Your task to perform on an android device: Do I have any events this weekend? Image 0: 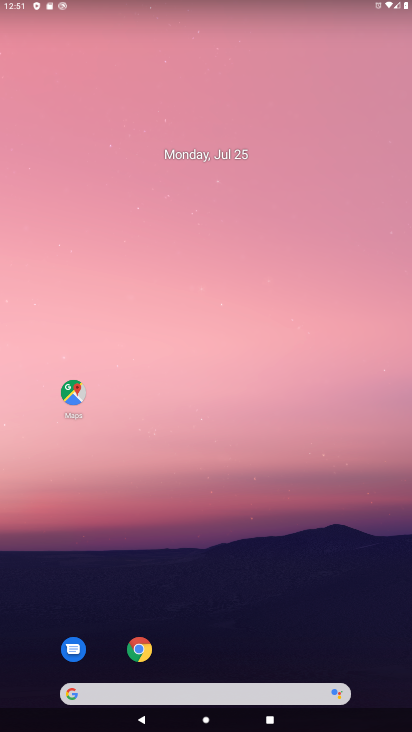
Step 0: press home button
Your task to perform on an android device: Do I have any events this weekend? Image 1: 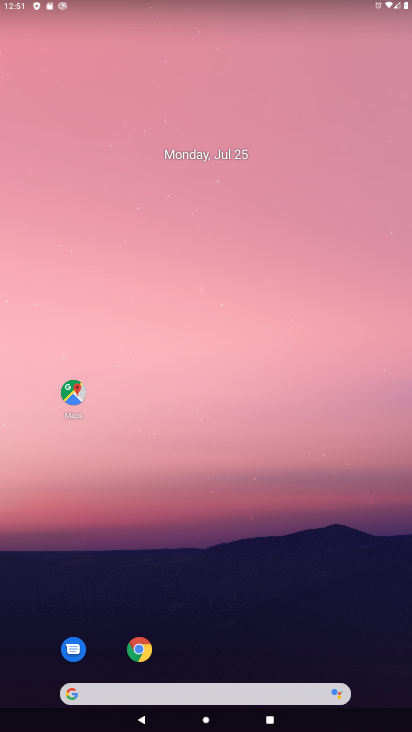
Step 1: drag from (302, 601) to (303, 2)
Your task to perform on an android device: Do I have any events this weekend? Image 2: 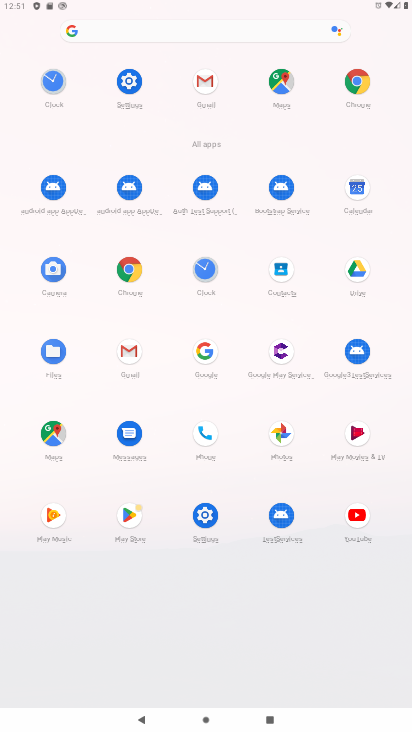
Step 2: click (358, 184)
Your task to perform on an android device: Do I have any events this weekend? Image 3: 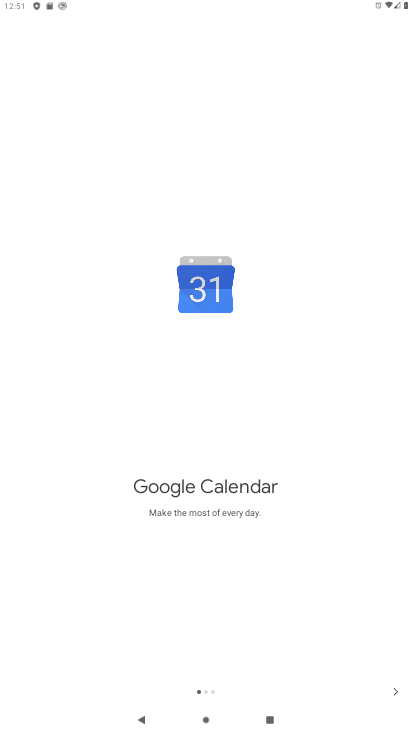
Step 3: click (386, 685)
Your task to perform on an android device: Do I have any events this weekend? Image 4: 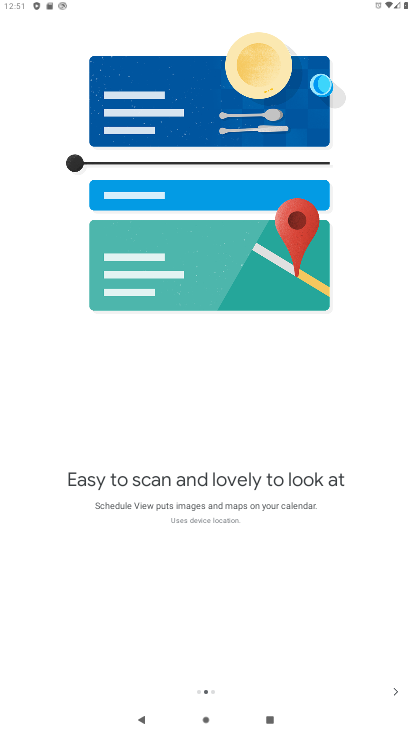
Step 4: click (390, 695)
Your task to perform on an android device: Do I have any events this weekend? Image 5: 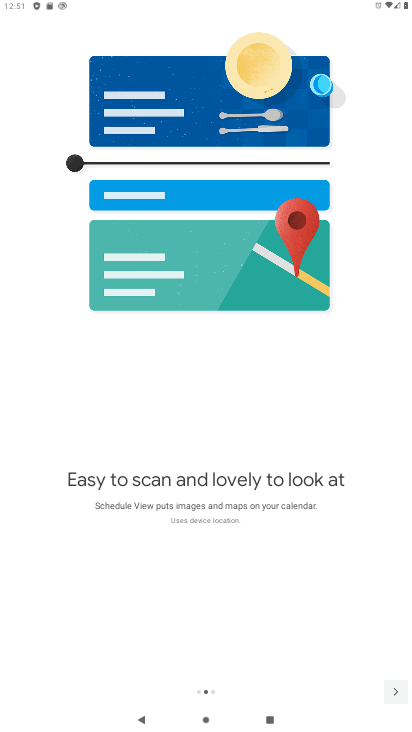
Step 5: click (390, 695)
Your task to perform on an android device: Do I have any events this weekend? Image 6: 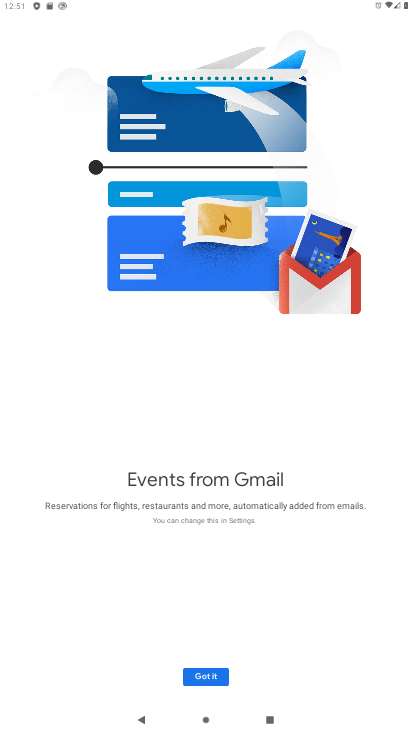
Step 6: click (205, 674)
Your task to perform on an android device: Do I have any events this weekend? Image 7: 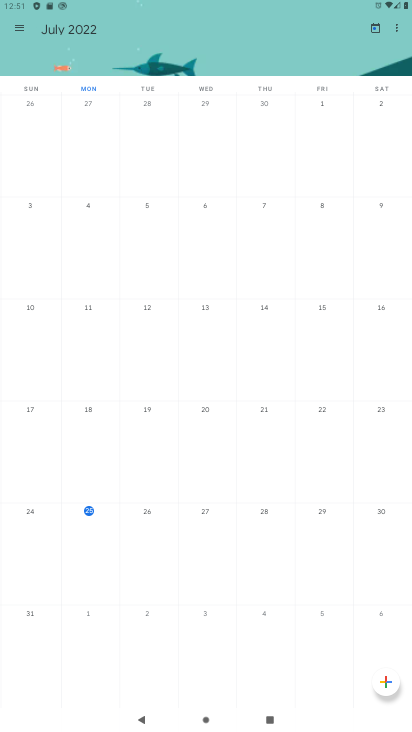
Step 7: click (21, 31)
Your task to perform on an android device: Do I have any events this weekend? Image 8: 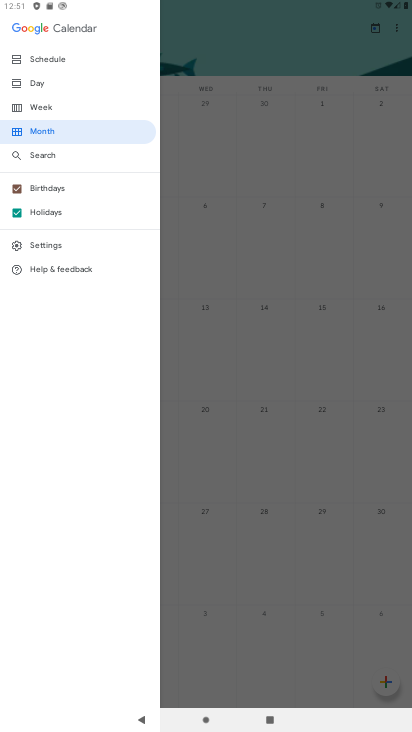
Step 8: click (47, 102)
Your task to perform on an android device: Do I have any events this weekend? Image 9: 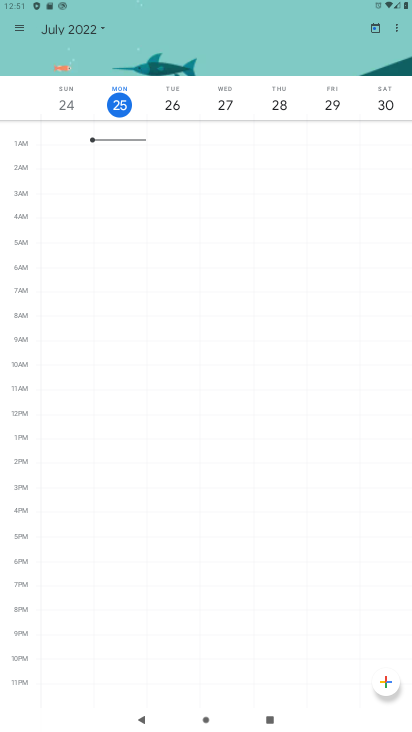
Step 9: task complete